Your task to perform on an android device: Check the weather Image 0: 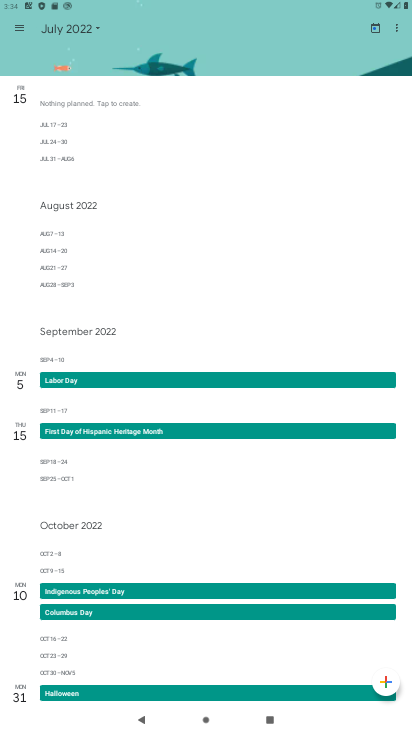
Step 0: press home button
Your task to perform on an android device: Check the weather Image 1: 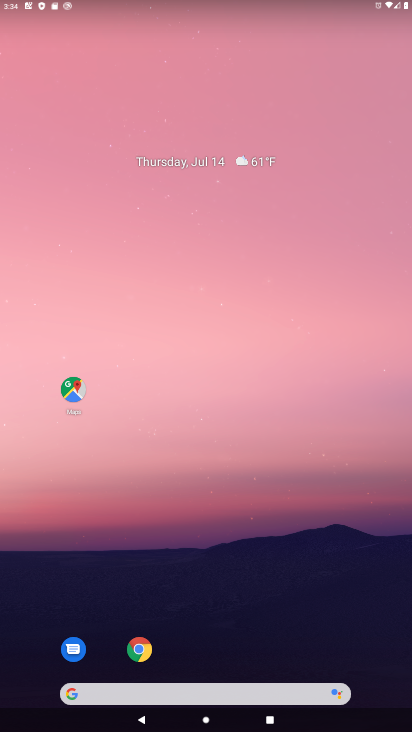
Step 1: click (189, 690)
Your task to perform on an android device: Check the weather Image 2: 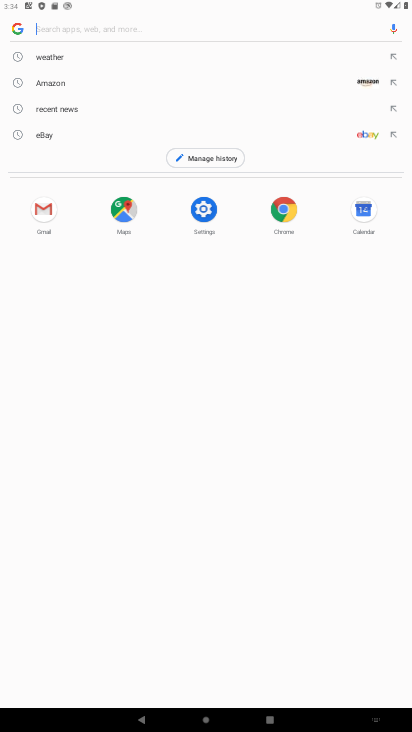
Step 2: click (47, 51)
Your task to perform on an android device: Check the weather Image 3: 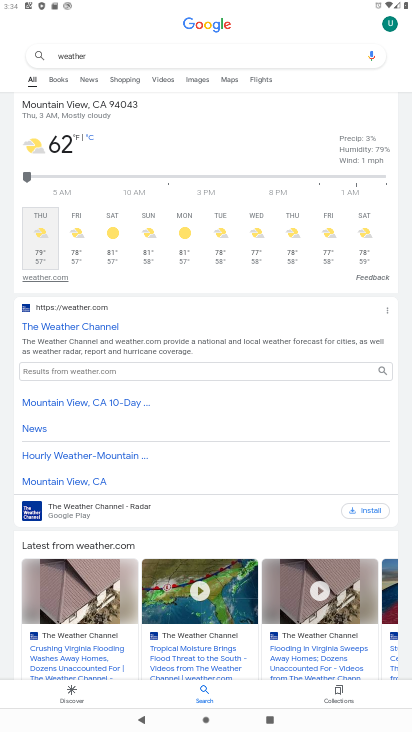
Step 3: task complete